Your task to perform on an android device: turn on the 12-hour format for clock Image 0: 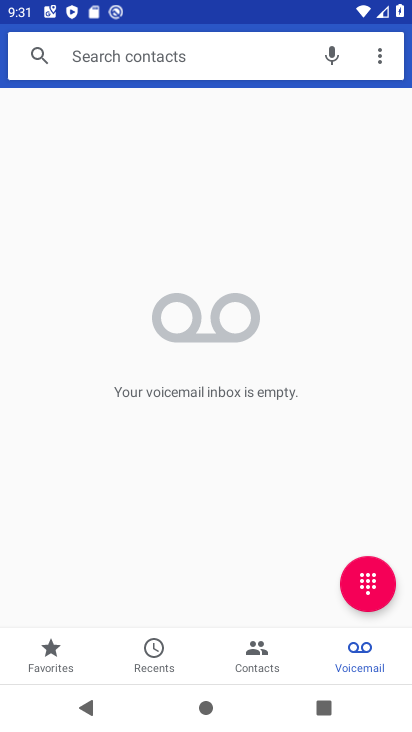
Step 0: press home button
Your task to perform on an android device: turn on the 12-hour format for clock Image 1: 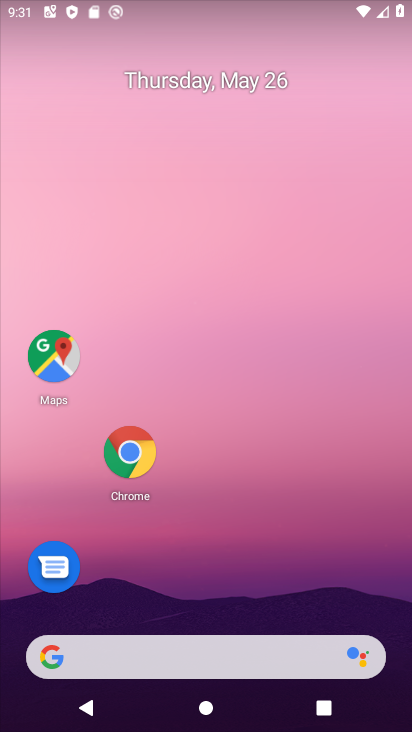
Step 1: drag from (318, 298) to (336, 121)
Your task to perform on an android device: turn on the 12-hour format for clock Image 2: 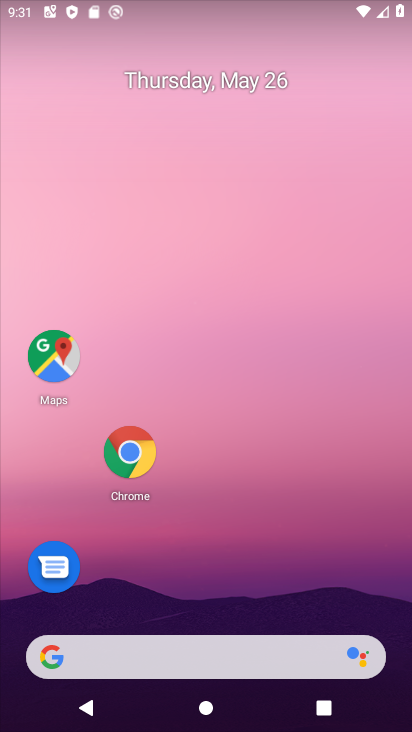
Step 2: drag from (239, 652) to (375, 101)
Your task to perform on an android device: turn on the 12-hour format for clock Image 3: 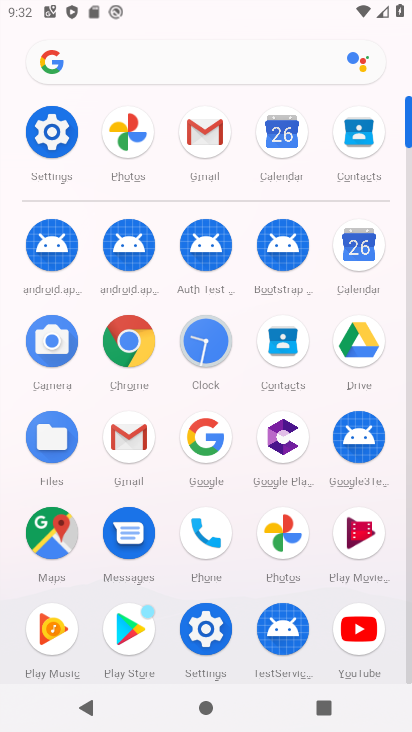
Step 3: click (205, 342)
Your task to perform on an android device: turn on the 12-hour format for clock Image 4: 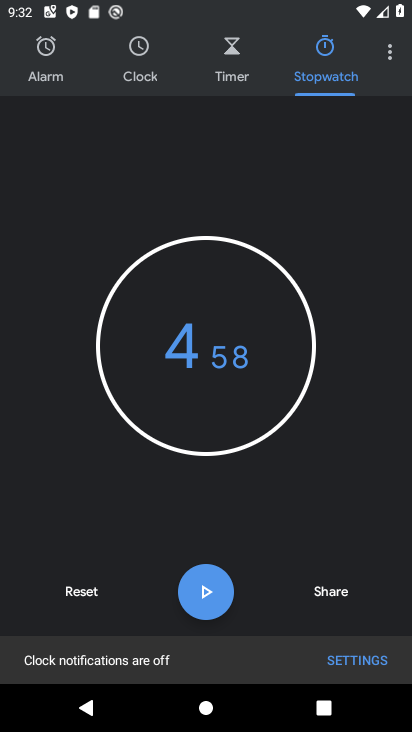
Step 4: click (387, 55)
Your task to perform on an android device: turn on the 12-hour format for clock Image 5: 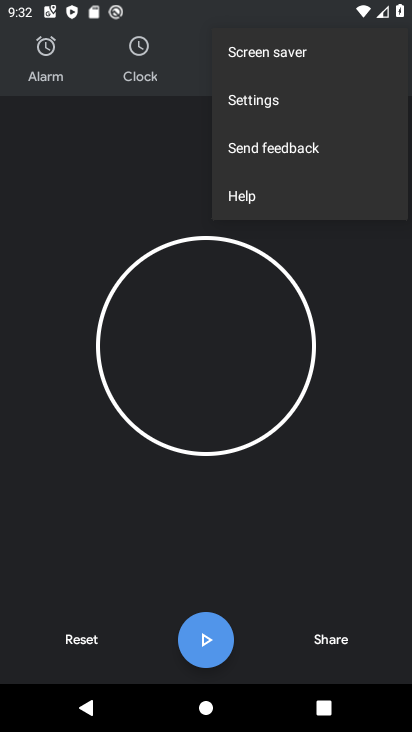
Step 5: click (274, 104)
Your task to perform on an android device: turn on the 12-hour format for clock Image 6: 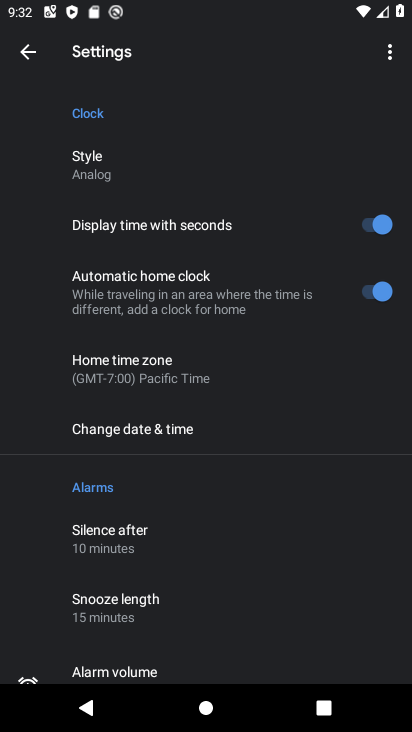
Step 6: click (144, 425)
Your task to perform on an android device: turn on the 12-hour format for clock Image 7: 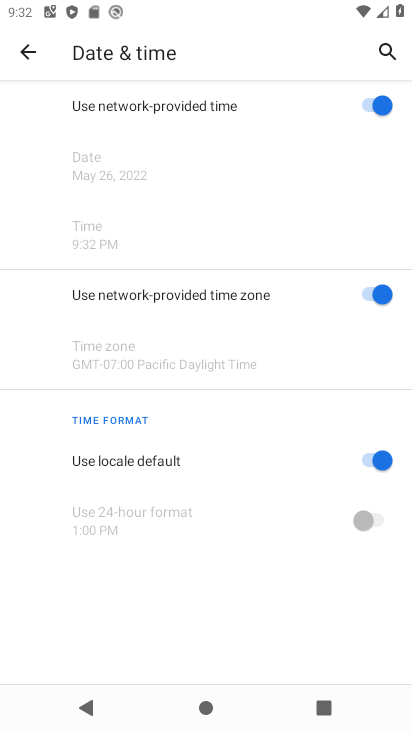
Step 7: task complete